Your task to perform on an android device: Go to privacy settings Image 0: 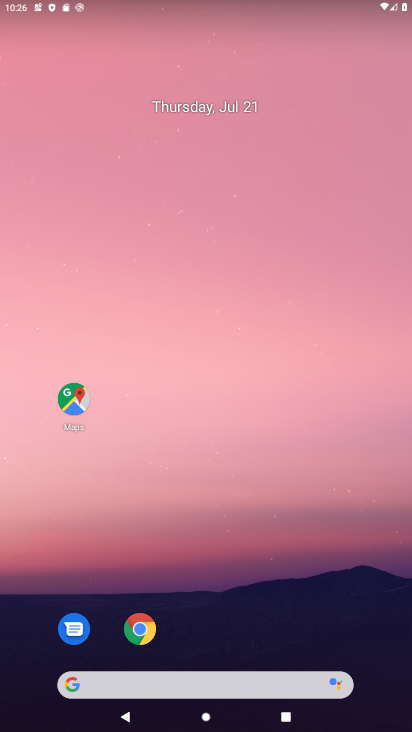
Step 0: drag from (191, 643) to (251, 123)
Your task to perform on an android device: Go to privacy settings Image 1: 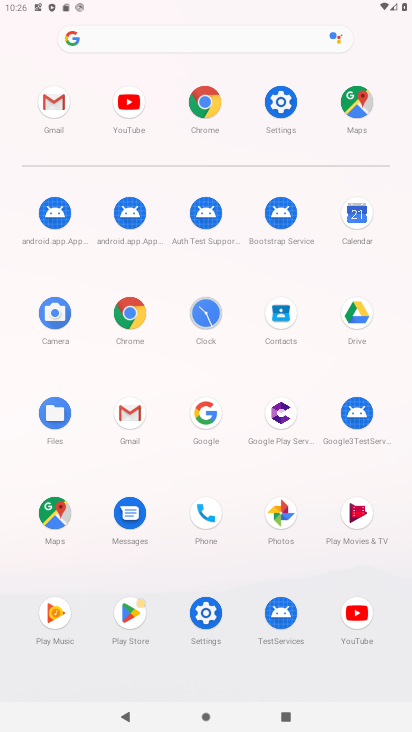
Step 1: click (208, 611)
Your task to perform on an android device: Go to privacy settings Image 2: 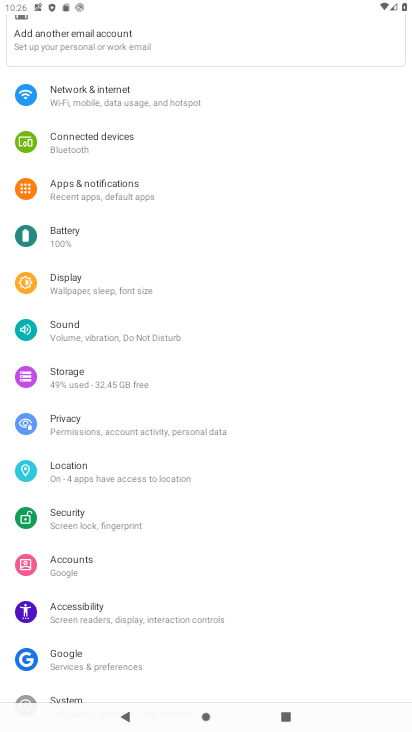
Step 2: click (122, 434)
Your task to perform on an android device: Go to privacy settings Image 3: 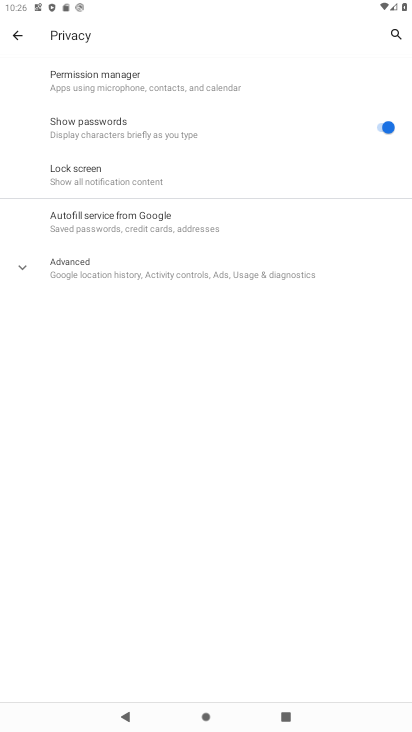
Step 3: task complete